Your task to perform on an android device: set an alarm Image 0: 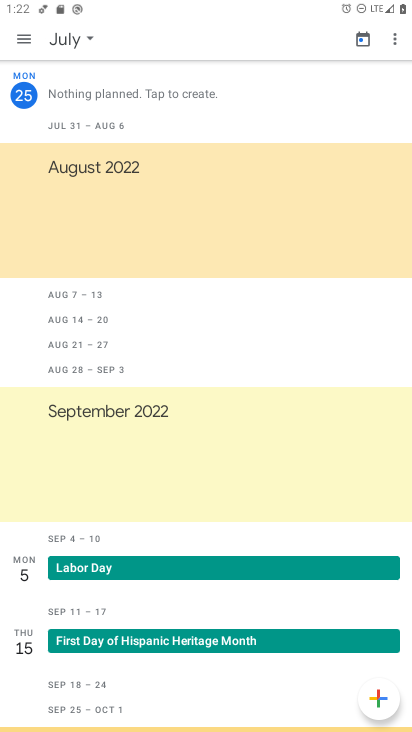
Step 0: press home button
Your task to perform on an android device: set an alarm Image 1: 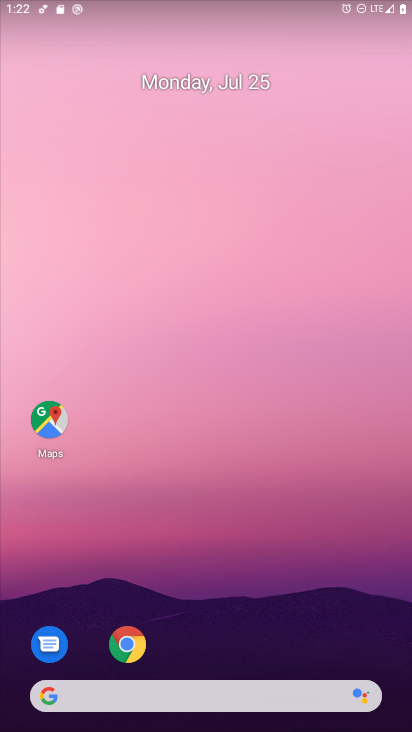
Step 1: drag from (228, 643) to (211, 37)
Your task to perform on an android device: set an alarm Image 2: 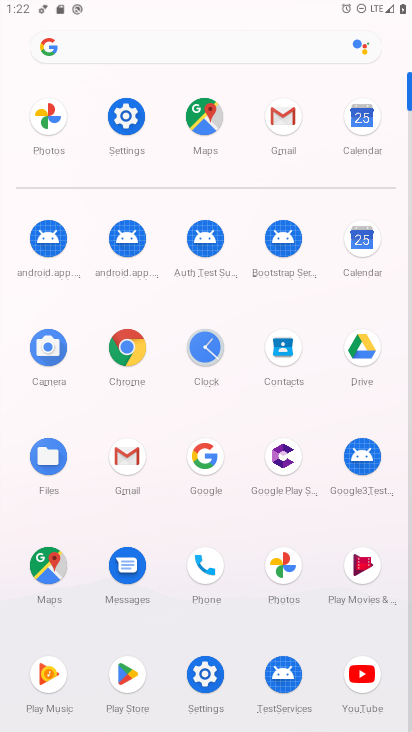
Step 2: click (207, 353)
Your task to perform on an android device: set an alarm Image 3: 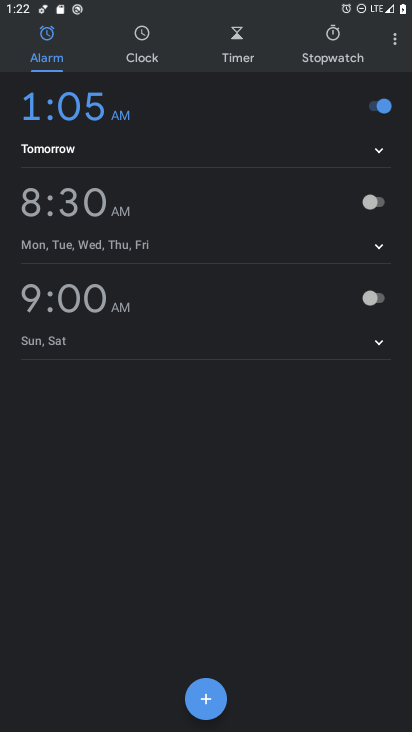
Step 3: click (211, 695)
Your task to perform on an android device: set an alarm Image 4: 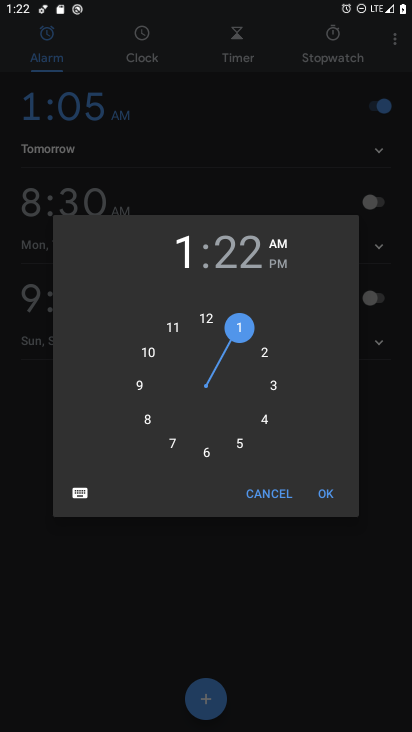
Step 4: click (330, 490)
Your task to perform on an android device: set an alarm Image 5: 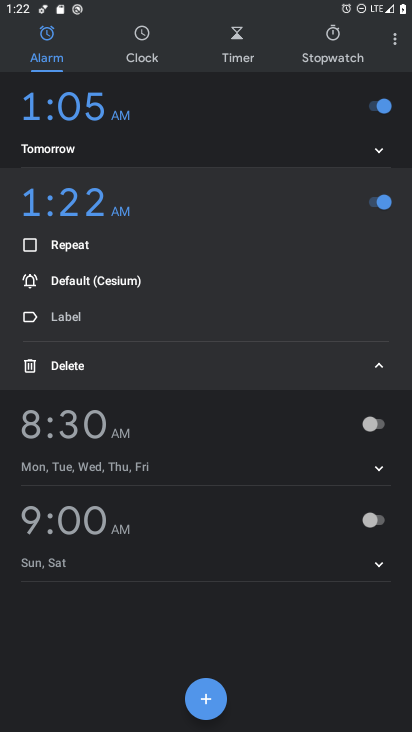
Step 5: click (384, 371)
Your task to perform on an android device: set an alarm Image 6: 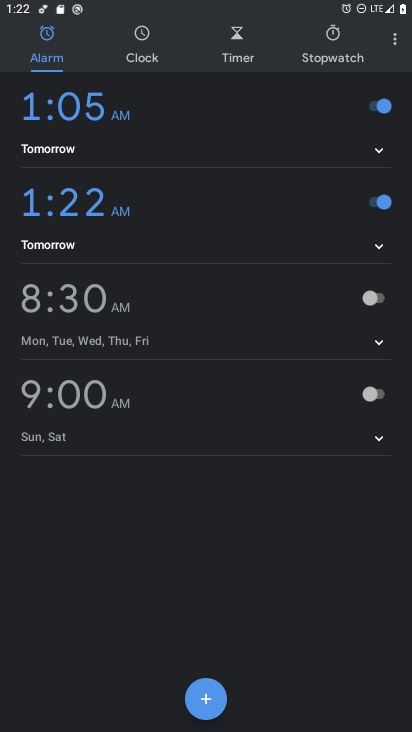
Step 6: task complete